Your task to perform on an android device: Open calendar and show me the third week of next month Image 0: 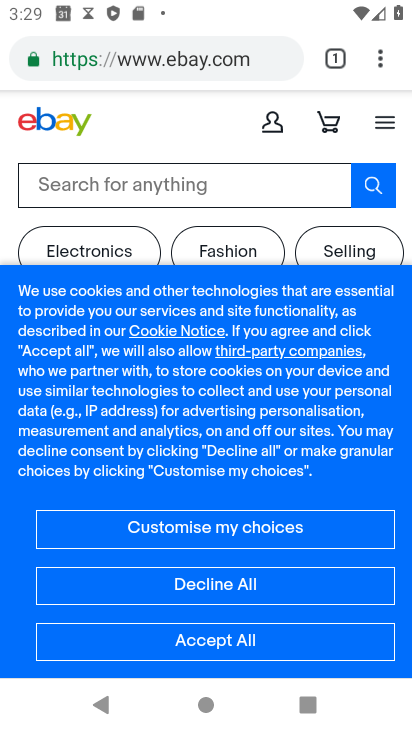
Step 0: press home button
Your task to perform on an android device: Open calendar and show me the third week of next month Image 1: 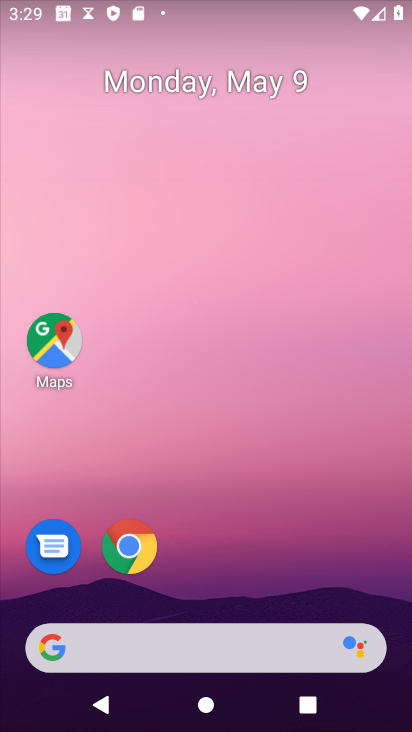
Step 1: drag from (347, 456) to (332, 78)
Your task to perform on an android device: Open calendar and show me the third week of next month Image 2: 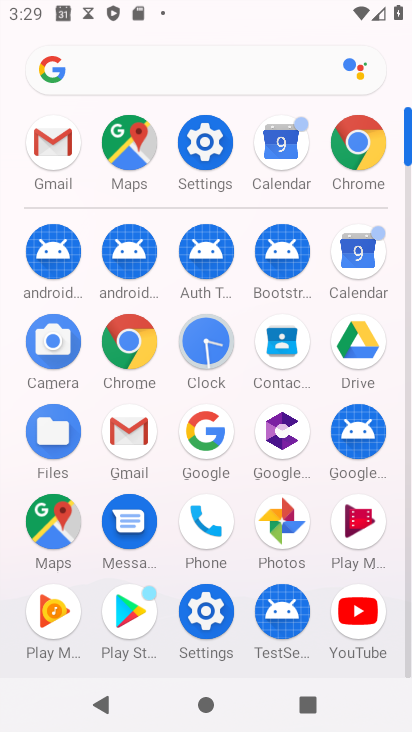
Step 2: click (372, 257)
Your task to perform on an android device: Open calendar and show me the third week of next month Image 3: 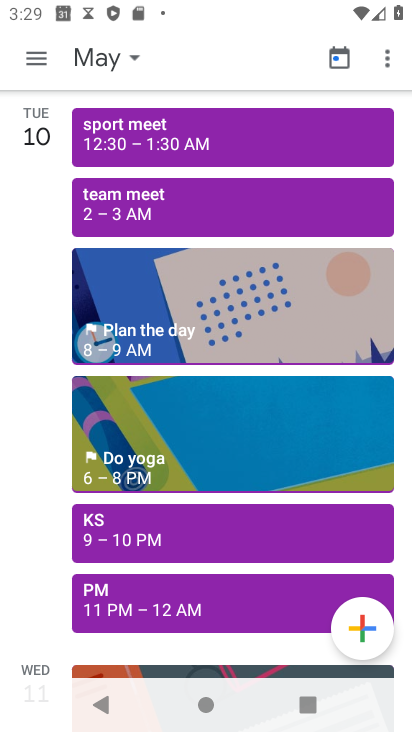
Step 3: click (123, 62)
Your task to perform on an android device: Open calendar and show me the third week of next month Image 4: 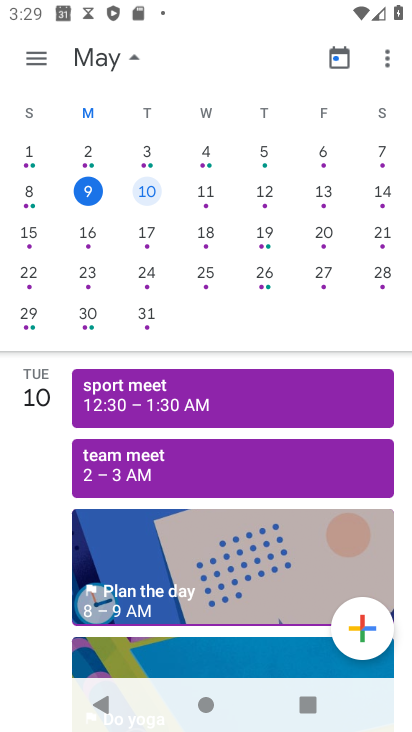
Step 4: drag from (322, 281) to (0, 162)
Your task to perform on an android device: Open calendar and show me the third week of next month Image 5: 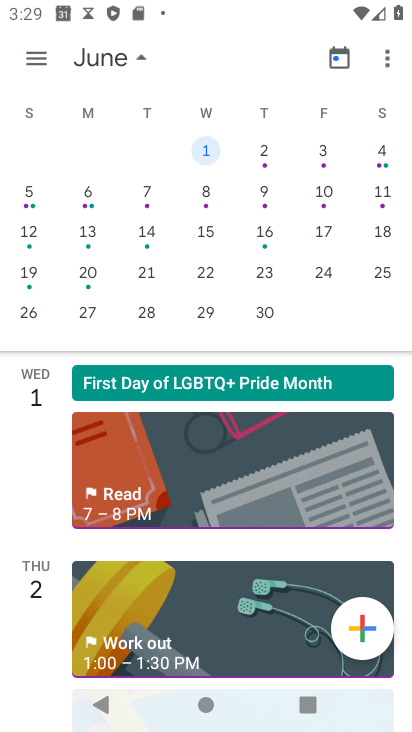
Step 5: click (140, 272)
Your task to perform on an android device: Open calendar and show me the third week of next month Image 6: 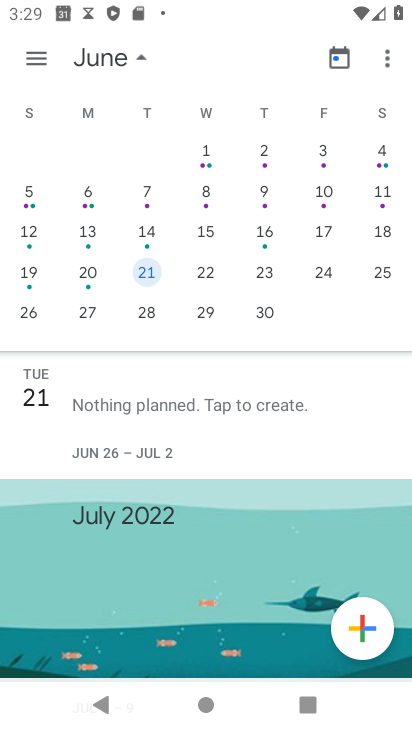
Step 6: task complete